Your task to perform on an android device: Toggle the flashlight Image 0: 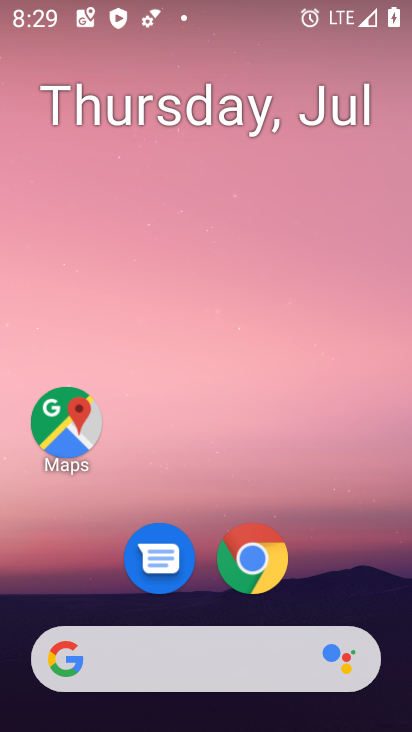
Step 0: drag from (270, 15) to (241, 416)
Your task to perform on an android device: Toggle the flashlight Image 1: 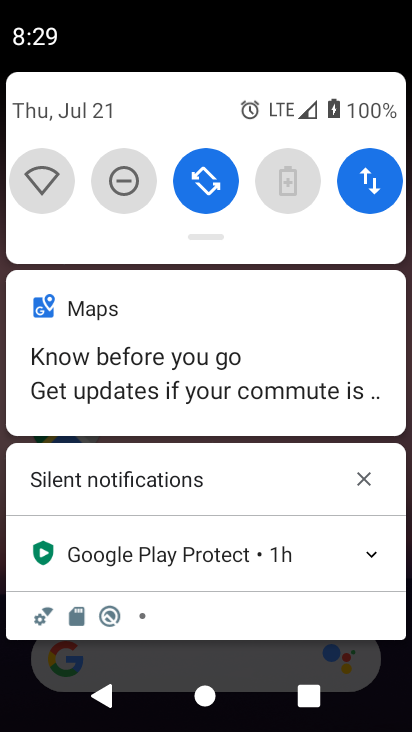
Step 1: task complete